Your task to perform on an android device: toggle notification dots Image 0: 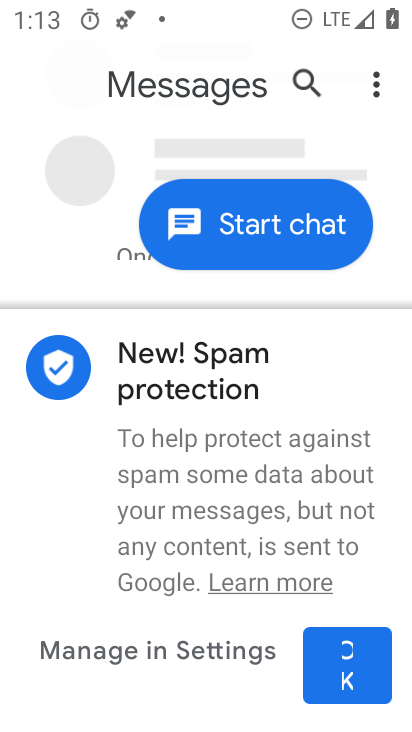
Step 0: press home button
Your task to perform on an android device: toggle notification dots Image 1: 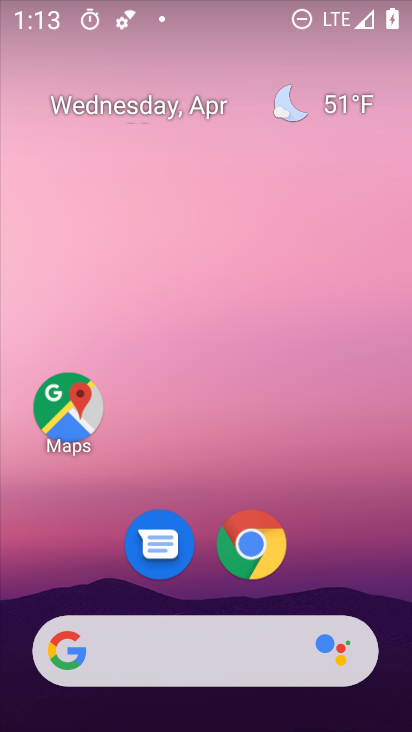
Step 1: drag from (373, 535) to (376, 201)
Your task to perform on an android device: toggle notification dots Image 2: 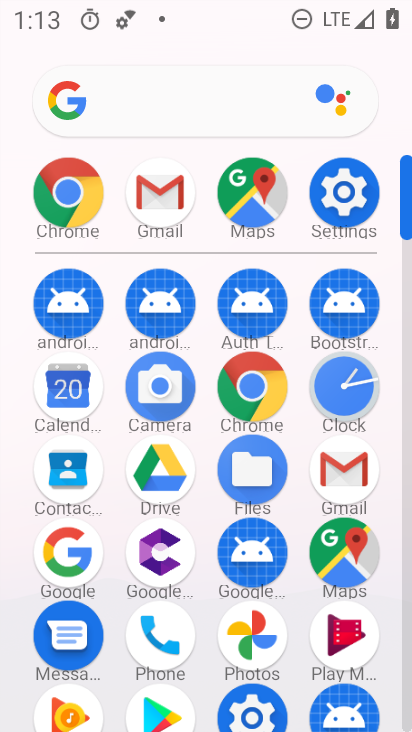
Step 2: click (350, 168)
Your task to perform on an android device: toggle notification dots Image 3: 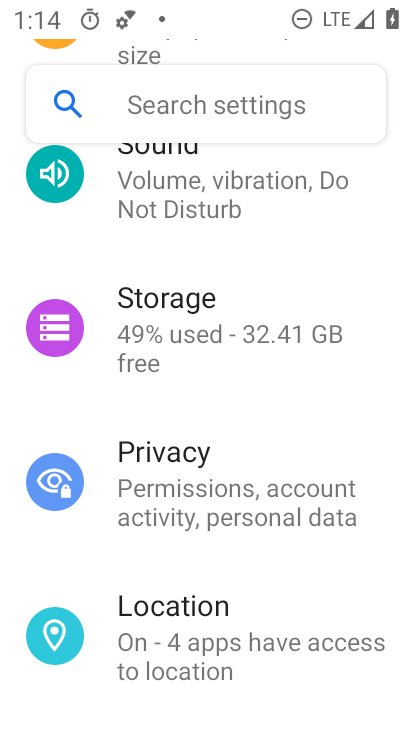
Step 3: drag from (382, 458) to (355, 231)
Your task to perform on an android device: toggle notification dots Image 4: 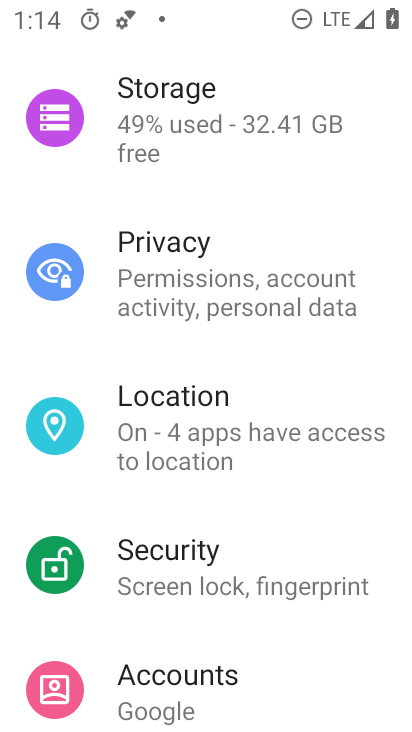
Step 4: drag from (379, 528) to (372, 342)
Your task to perform on an android device: toggle notification dots Image 5: 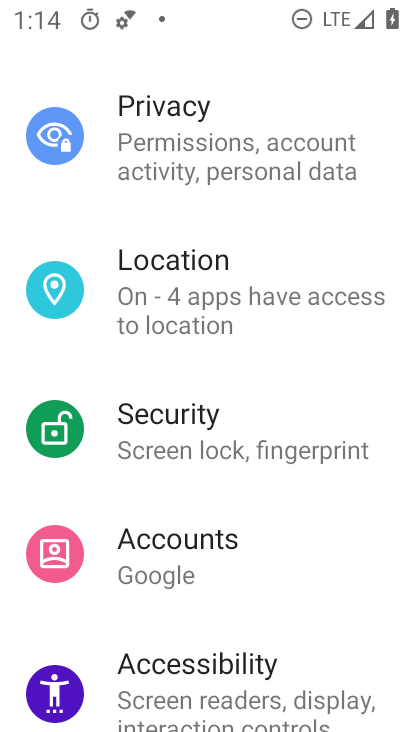
Step 5: drag from (380, 570) to (371, 417)
Your task to perform on an android device: toggle notification dots Image 6: 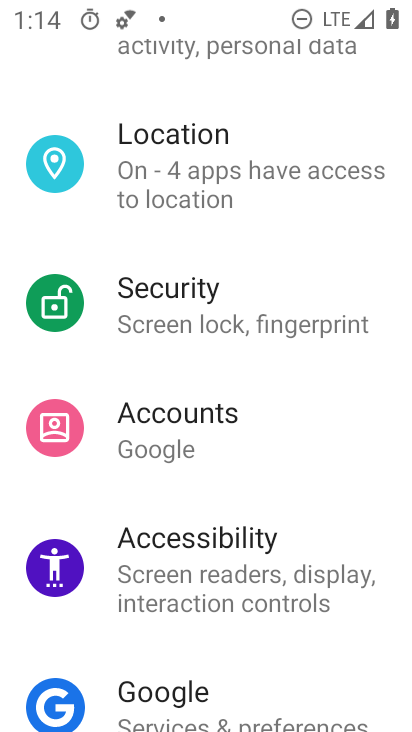
Step 6: drag from (370, 626) to (362, 461)
Your task to perform on an android device: toggle notification dots Image 7: 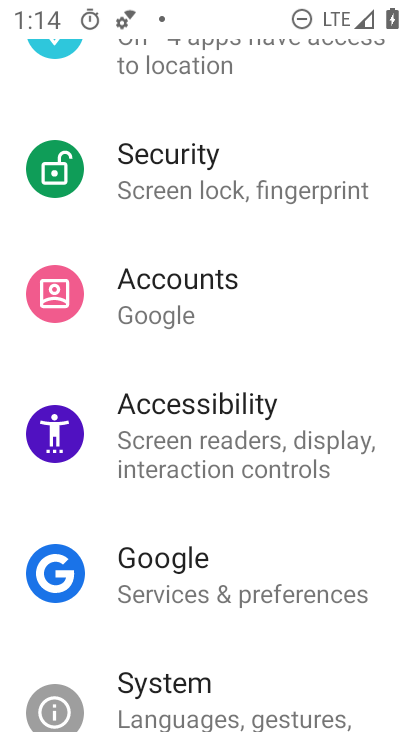
Step 7: drag from (364, 632) to (379, 478)
Your task to perform on an android device: toggle notification dots Image 8: 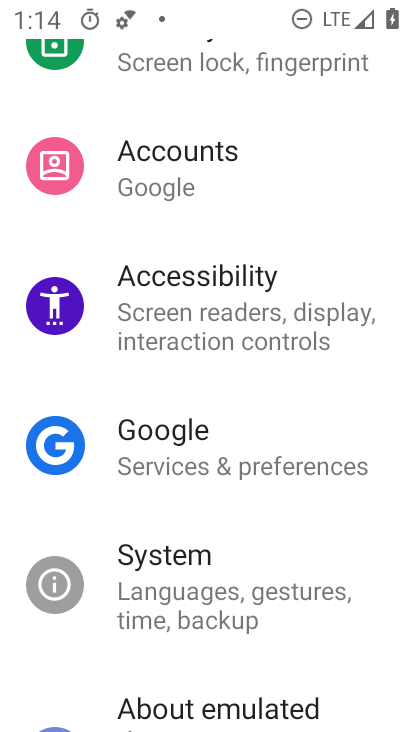
Step 8: drag from (389, 390) to (376, 506)
Your task to perform on an android device: toggle notification dots Image 9: 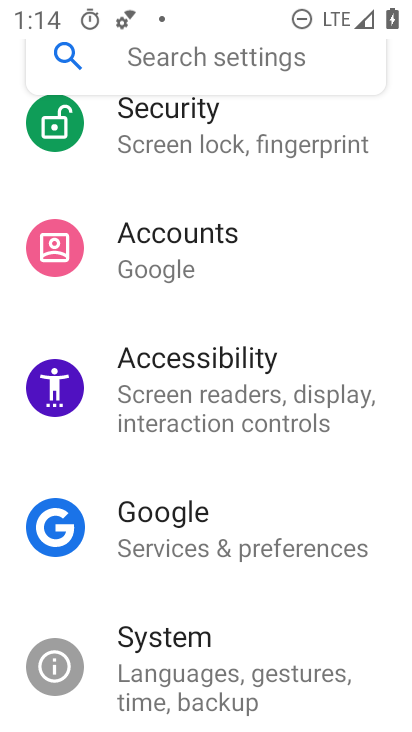
Step 9: drag from (376, 408) to (373, 530)
Your task to perform on an android device: toggle notification dots Image 10: 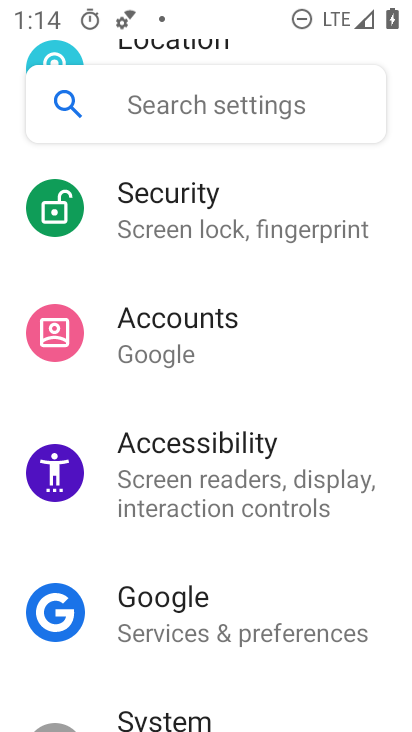
Step 10: drag from (388, 394) to (382, 508)
Your task to perform on an android device: toggle notification dots Image 11: 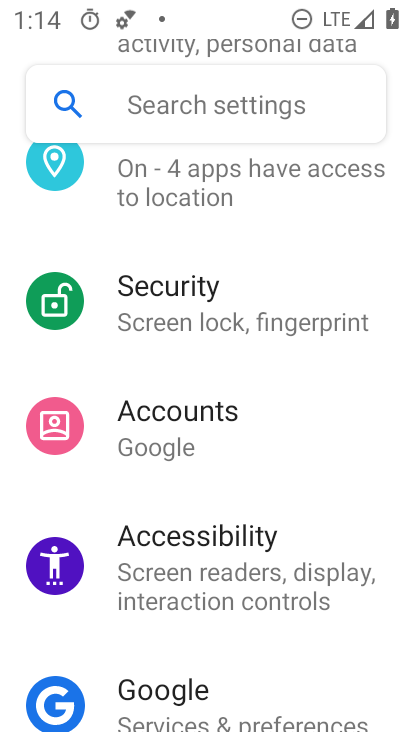
Step 11: drag from (367, 378) to (372, 513)
Your task to perform on an android device: toggle notification dots Image 12: 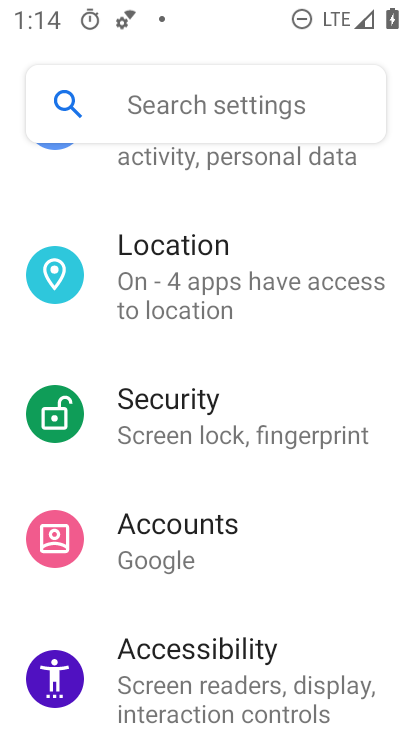
Step 12: drag from (375, 388) to (369, 542)
Your task to perform on an android device: toggle notification dots Image 13: 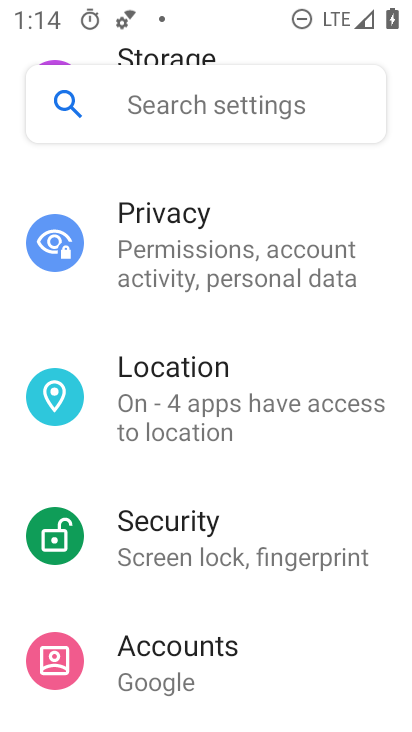
Step 13: drag from (375, 346) to (371, 512)
Your task to perform on an android device: toggle notification dots Image 14: 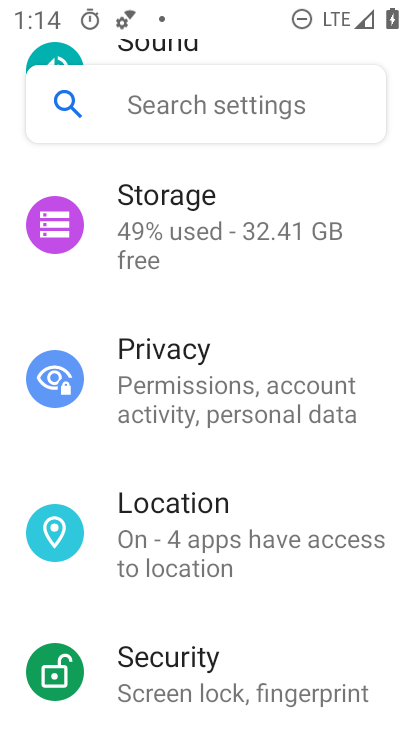
Step 14: drag from (369, 350) to (374, 517)
Your task to perform on an android device: toggle notification dots Image 15: 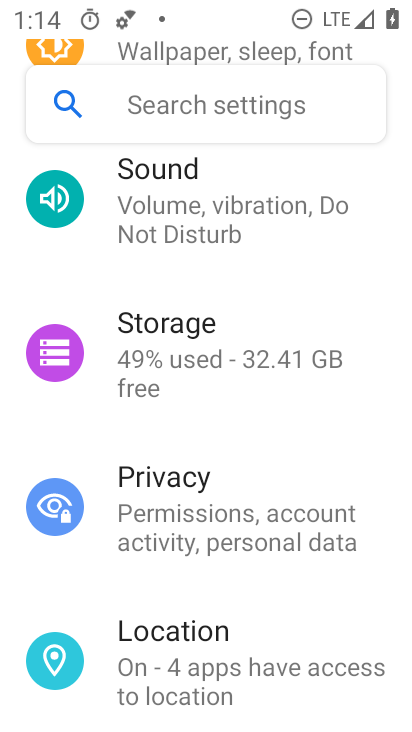
Step 15: drag from (367, 315) to (370, 457)
Your task to perform on an android device: toggle notification dots Image 16: 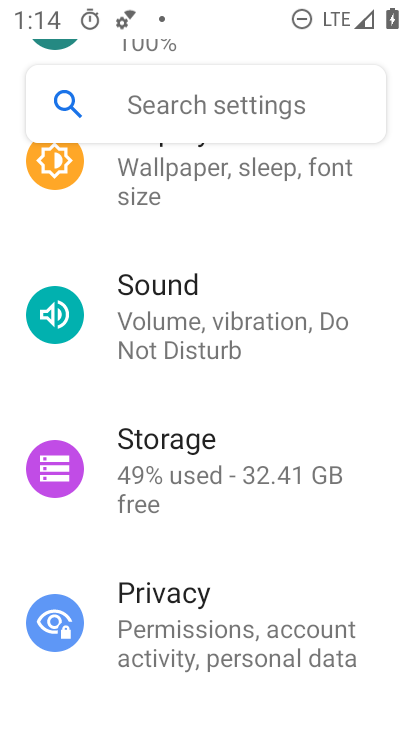
Step 16: drag from (366, 288) to (360, 447)
Your task to perform on an android device: toggle notification dots Image 17: 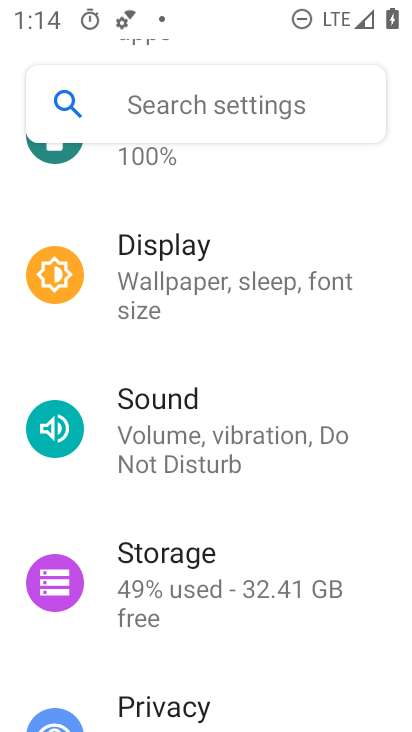
Step 17: drag from (368, 306) to (351, 465)
Your task to perform on an android device: toggle notification dots Image 18: 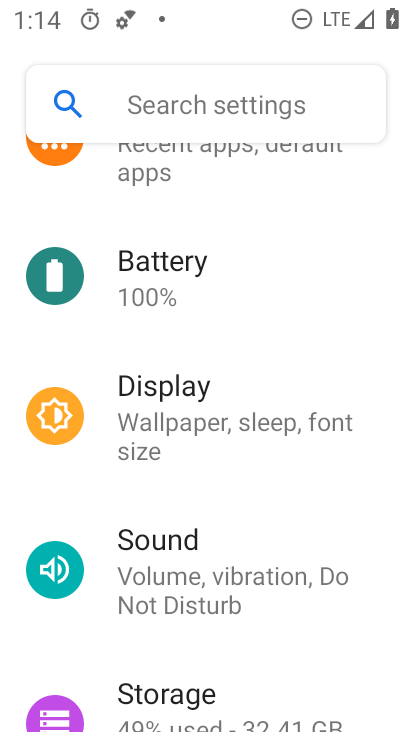
Step 18: drag from (354, 272) to (349, 399)
Your task to perform on an android device: toggle notification dots Image 19: 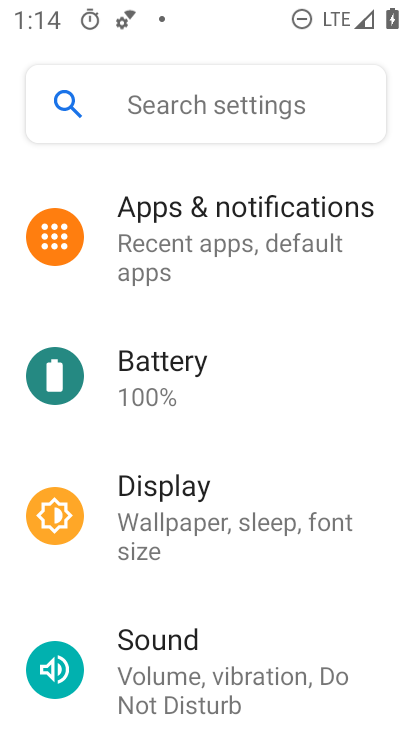
Step 19: click (301, 227)
Your task to perform on an android device: toggle notification dots Image 20: 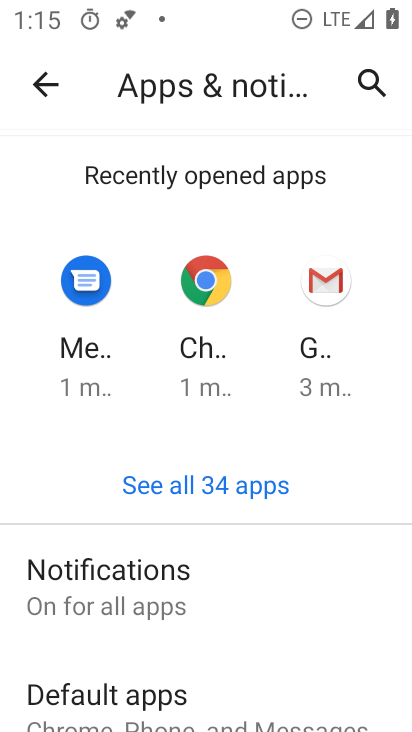
Step 20: click (186, 572)
Your task to perform on an android device: toggle notification dots Image 21: 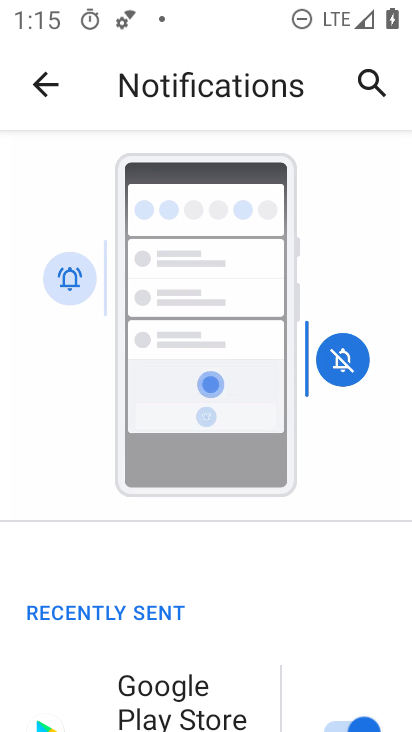
Step 21: drag from (271, 587) to (279, 413)
Your task to perform on an android device: toggle notification dots Image 22: 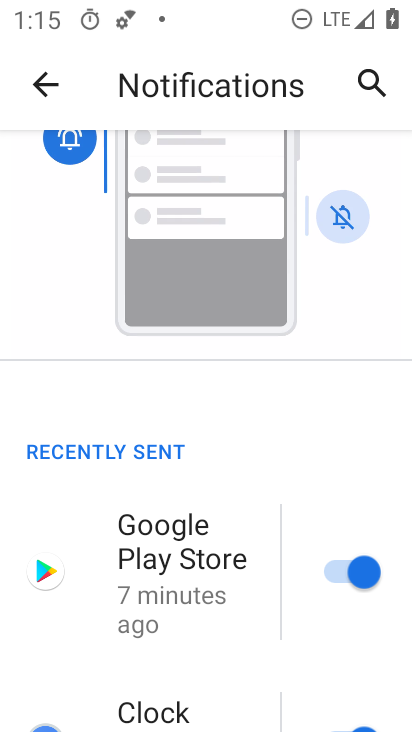
Step 22: drag from (305, 646) to (308, 479)
Your task to perform on an android device: toggle notification dots Image 23: 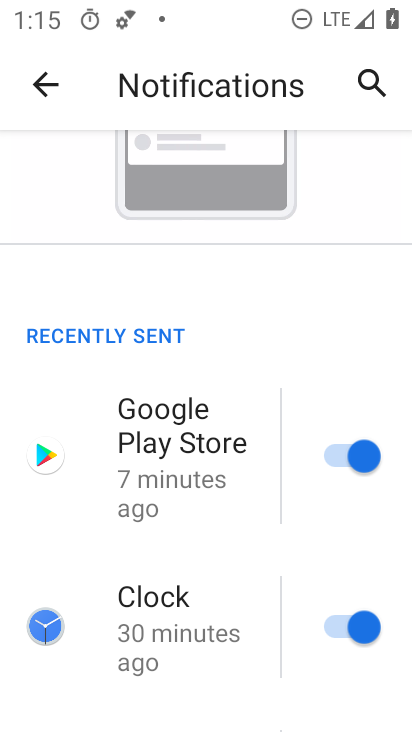
Step 23: drag from (309, 682) to (279, 514)
Your task to perform on an android device: toggle notification dots Image 24: 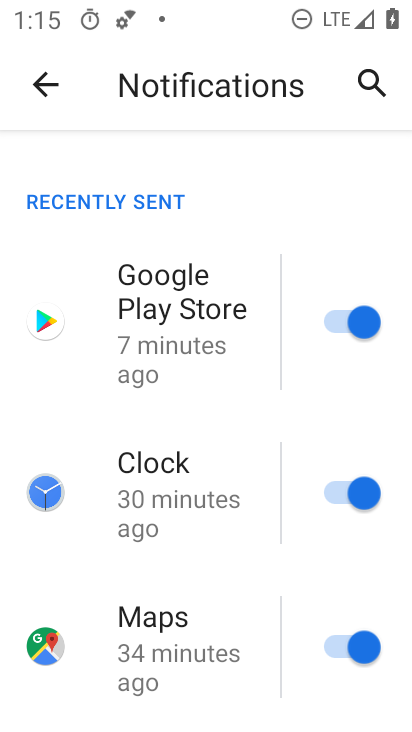
Step 24: drag from (249, 690) to (252, 531)
Your task to perform on an android device: toggle notification dots Image 25: 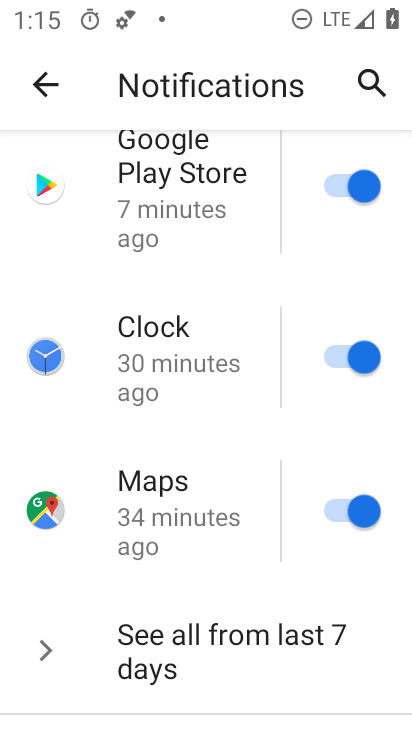
Step 25: drag from (268, 673) to (268, 555)
Your task to perform on an android device: toggle notification dots Image 26: 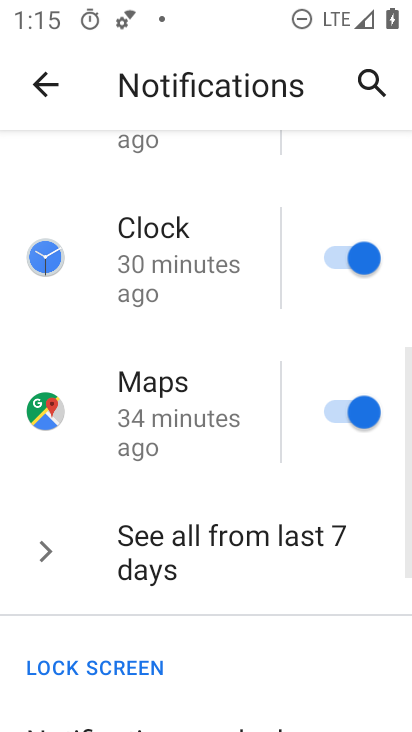
Step 26: drag from (284, 672) to (273, 539)
Your task to perform on an android device: toggle notification dots Image 27: 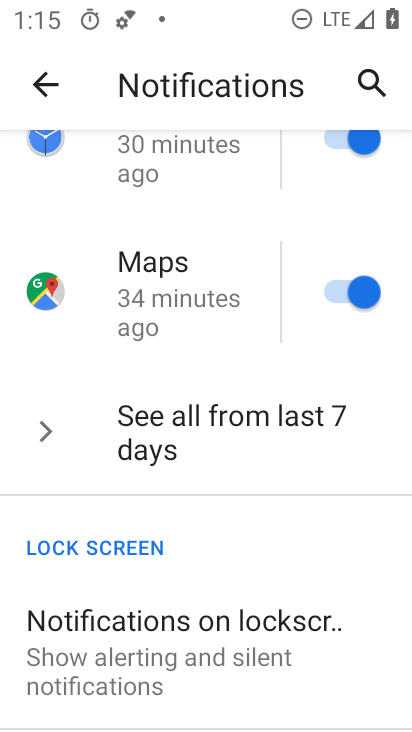
Step 27: drag from (311, 675) to (304, 503)
Your task to perform on an android device: toggle notification dots Image 28: 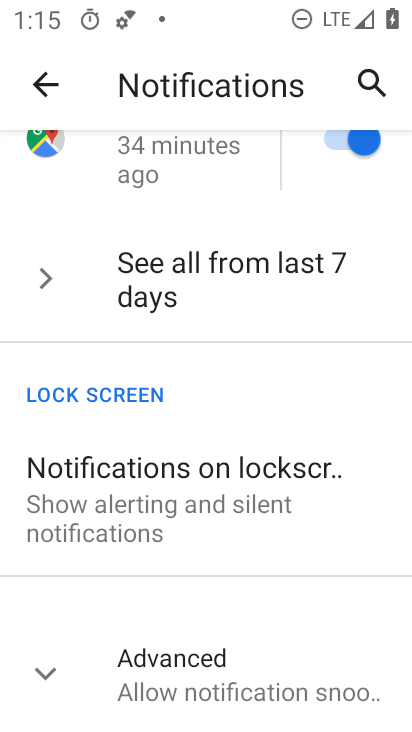
Step 28: drag from (304, 646) to (283, 541)
Your task to perform on an android device: toggle notification dots Image 29: 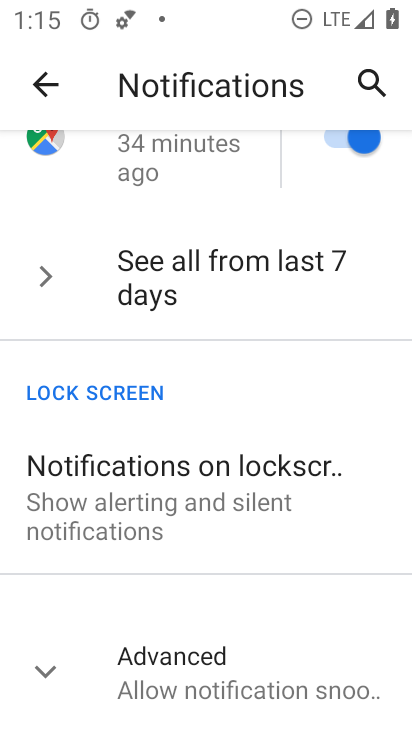
Step 29: click (280, 674)
Your task to perform on an android device: toggle notification dots Image 30: 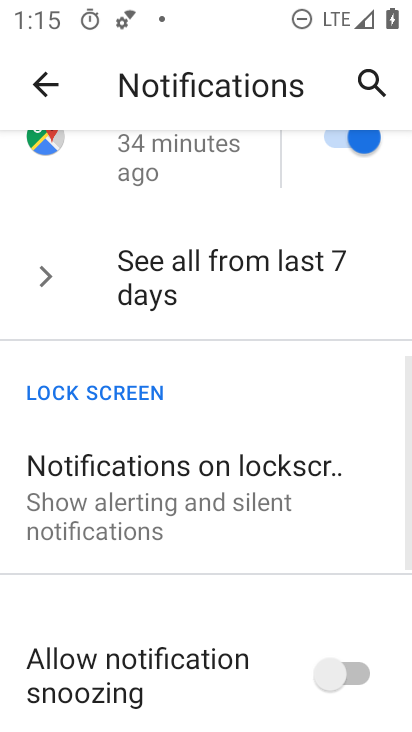
Step 30: drag from (280, 674) to (261, 470)
Your task to perform on an android device: toggle notification dots Image 31: 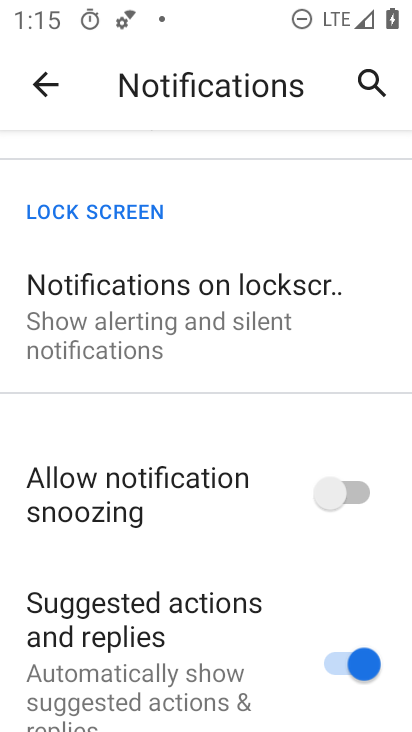
Step 31: drag from (270, 683) to (245, 413)
Your task to perform on an android device: toggle notification dots Image 32: 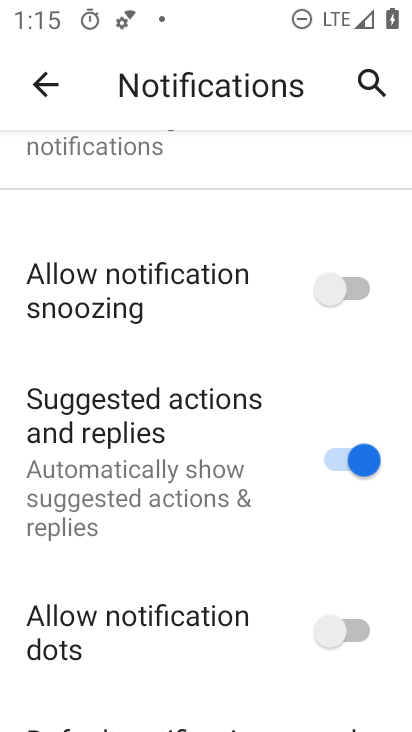
Step 32: drag from (292, 650) to (269, 532)
Your task to perform on an android device: toggle notification dots Image 33: 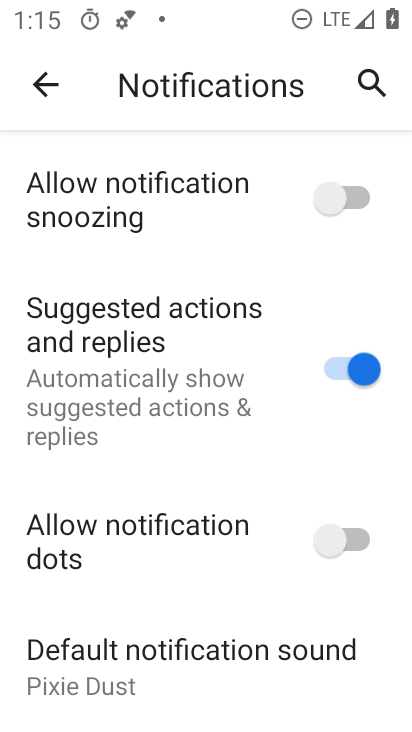
Step 33: click (336, 551)
Your task to perform on an android device: toggle notification dots Image 34: 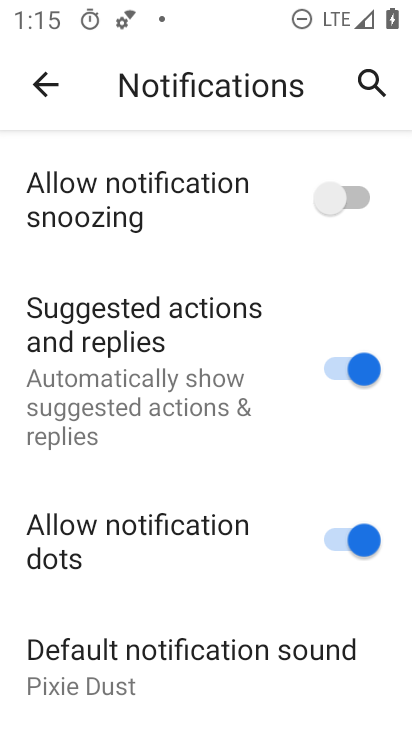
Step 34: task complete